Your task to perform on an android device: change your default location settings in chrome Image 0: 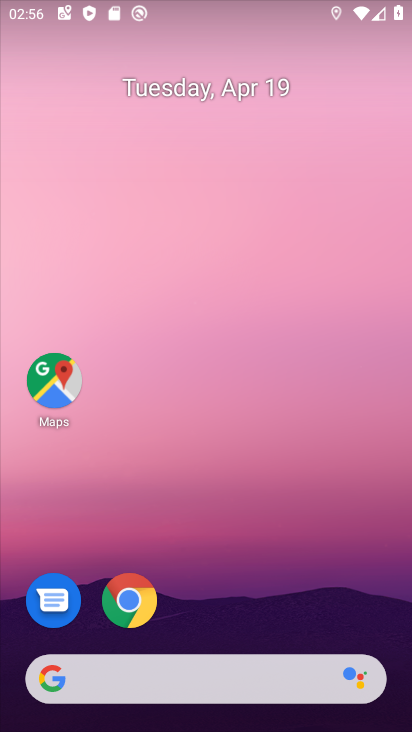
Step 0: drag from (321, 531) to (300, 79)
Your task to perform on an android device: change your default location settings in chrome Image 1: 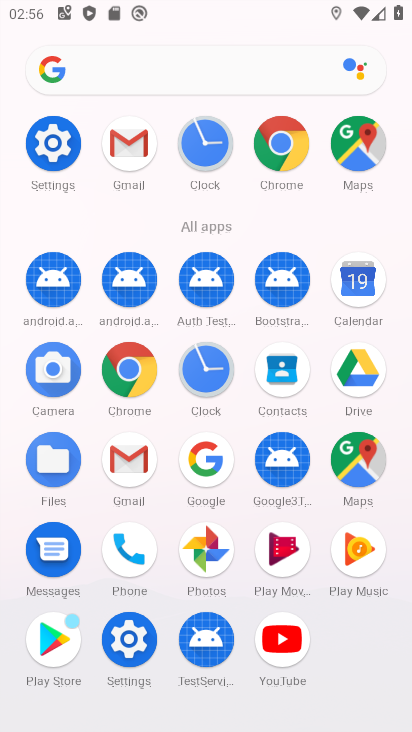
Step 1: click (272, 130)
Your task to perform on an android device: change your default location settings in chrome Image 2: 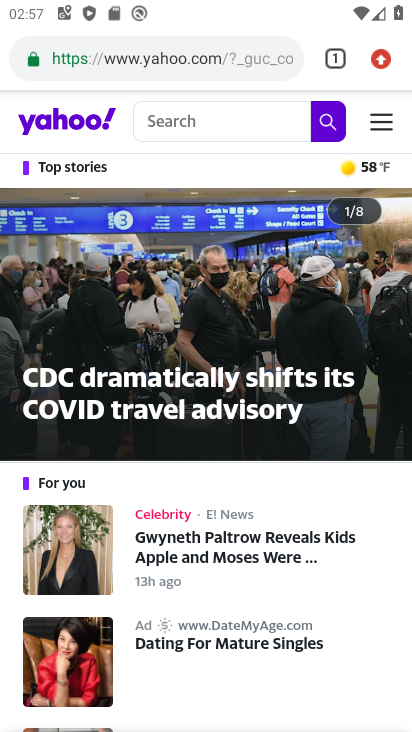
Step 2: click (379, 81)
Your task to perform on an android device: change your default location settings in chrome Image 3: 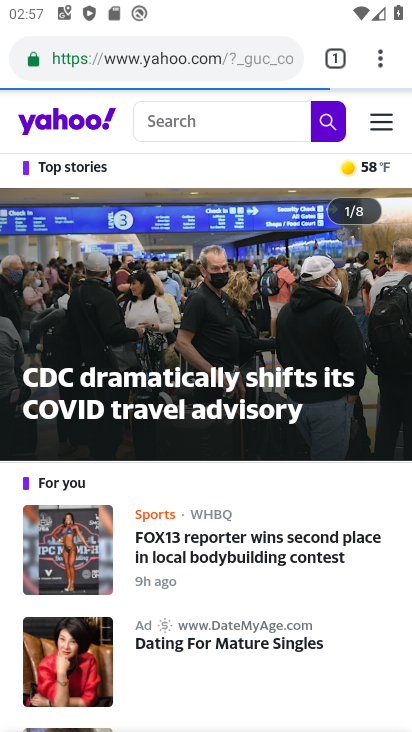
Step 3: click (377, 65)
Your task to perform on an android device: change your default location settings in chrome Image 4: 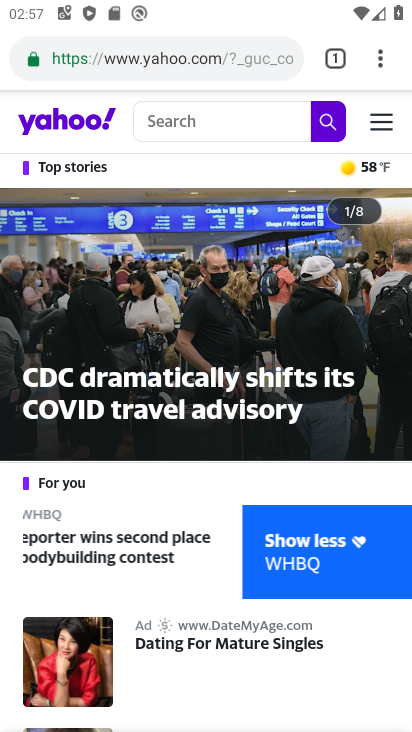
Step 4: click (377, 65)
Your task to perform on an android device: change your default location settings in chrome Image 5: 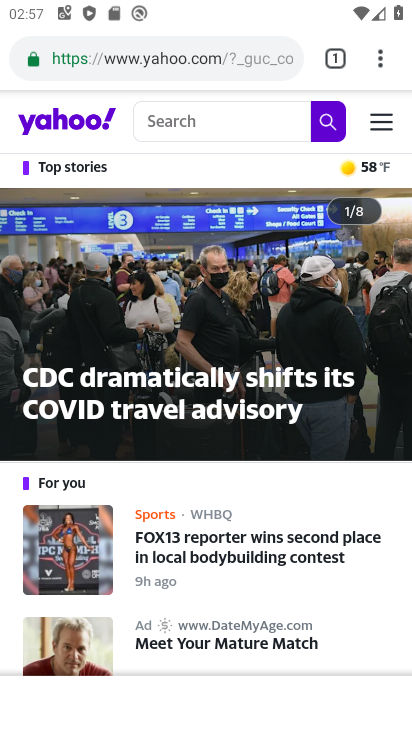
Step 5: click (377, 63)
Your task to perform on an android device: change your default location settings in chrome Image 6: 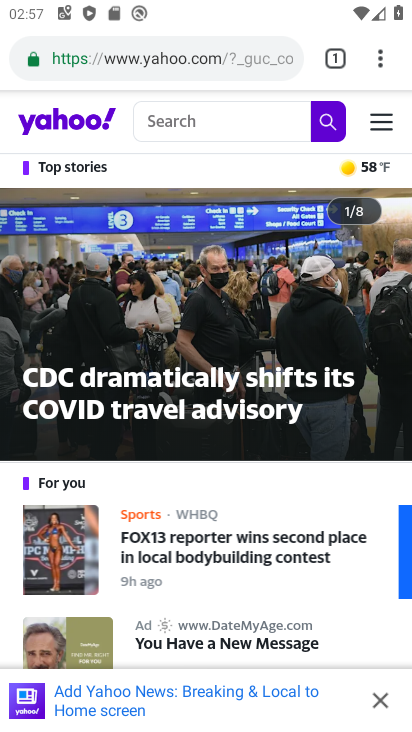
Step 6: click (381, 56)
Your task to perform on an android device: change your default location settings in chrome Image 7: 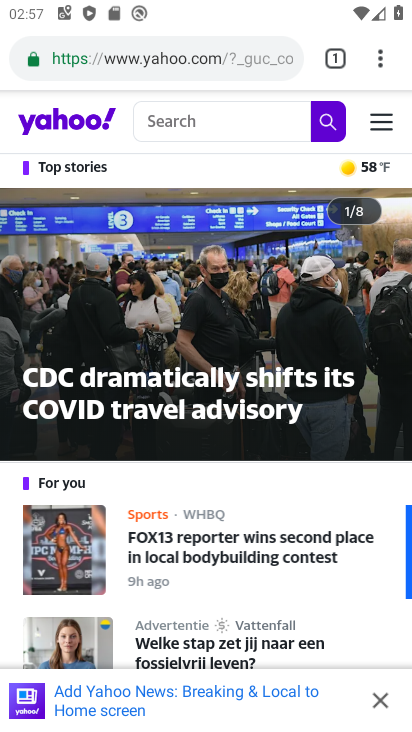
Step 7: click (378, 70)
Your task to perform on an android device: change your default location settings in chrome Image 8: 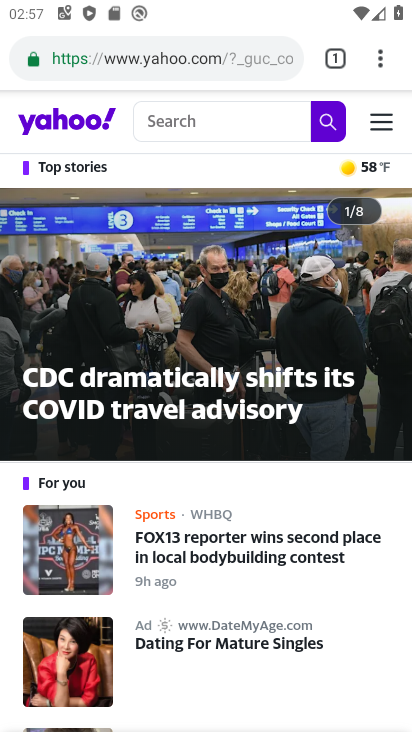
Step 8: click (380, 65)
Your task to perform on an android device: change your default location settings in chrome Image 9: 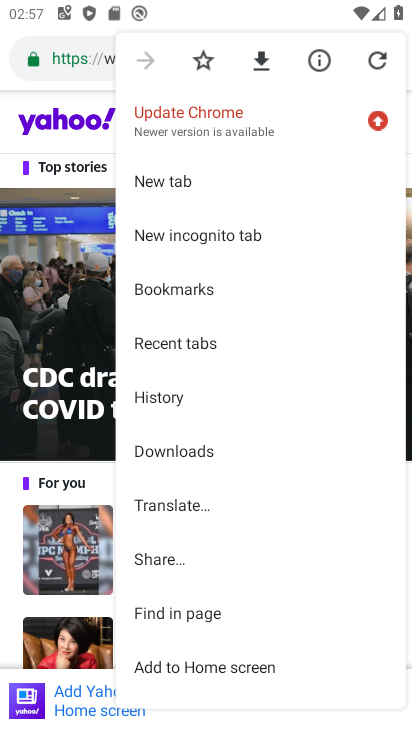
Step 9: drag from (307, 633) to (289, 318)
Your task to perform on an android device: change your default location settings in chrome Image 10: 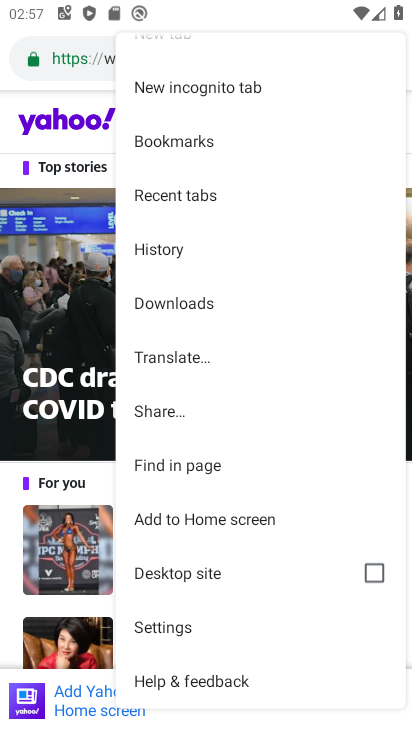
Step 10: click (286, 628)
Your task to perform on an android device: change your default location settings in chrome Image 11: 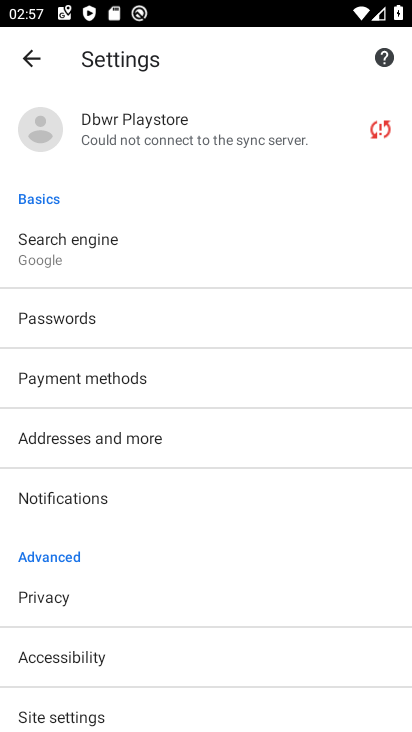
Step 11: drag from (297, 663) to (269, 322)
Your task to perform on an android device: change your default location settings in chrome Image 12: 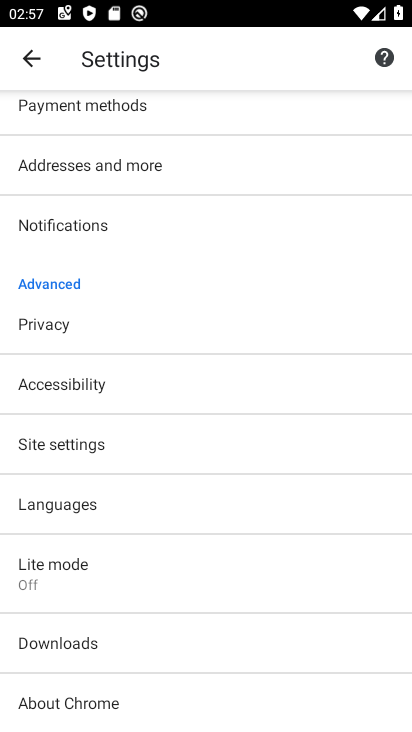
Step 12: click (263, 440)
Your task to perform on an android device: change your default location settings in chrome Image 13: 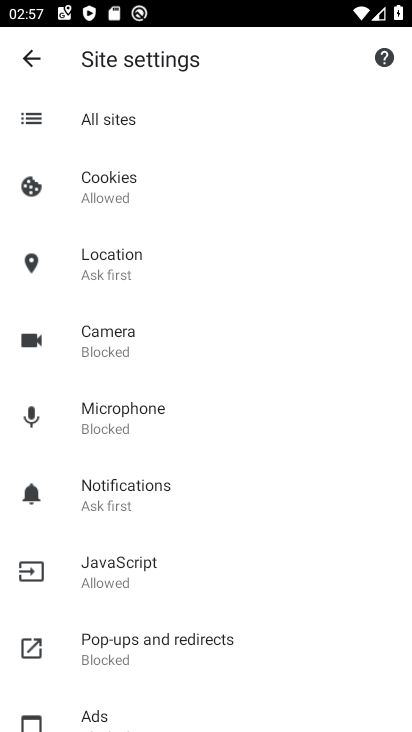
Step 13: click (257, 268)
Your task to perform on an android device: change your default location settings in chrome Image 14: 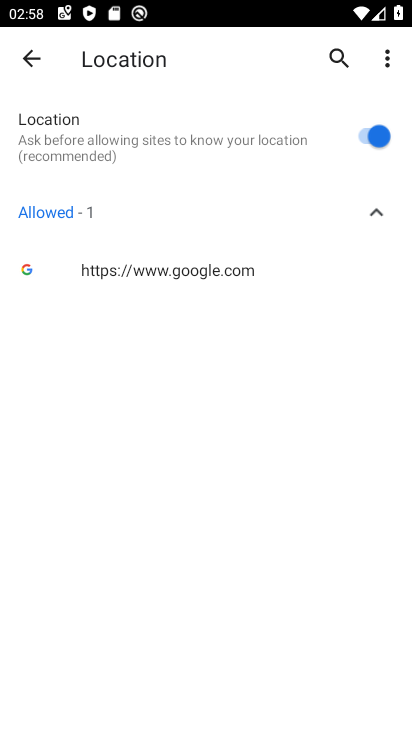
Step 14: task complete